Your task to perform on an android device: Search for vegetarian restaurants on Maps Image 0: 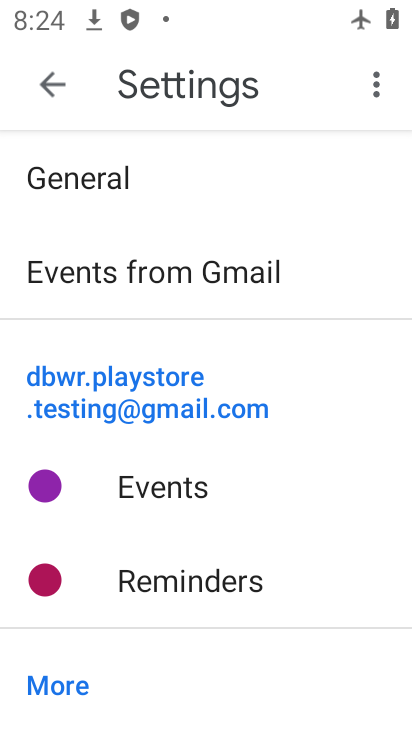
Step 0: press home button
Your task to perform on an android device: Search for vegetarian restaurants on Maps Image 1: 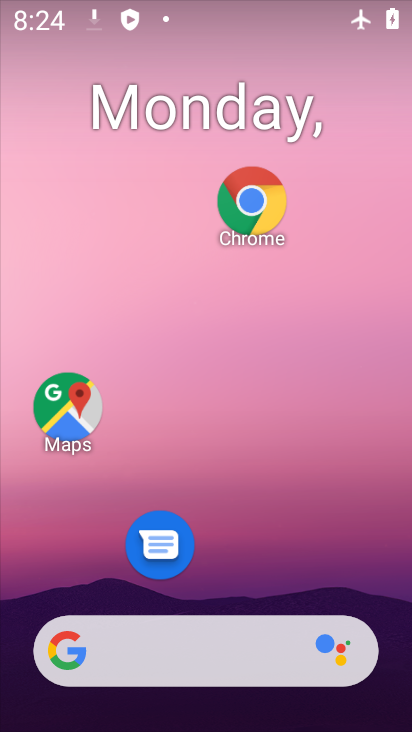
Step 1: click (74, 402)
Your task to perform on an android device: Search for vegetarian restaurants on Maps Image 2: 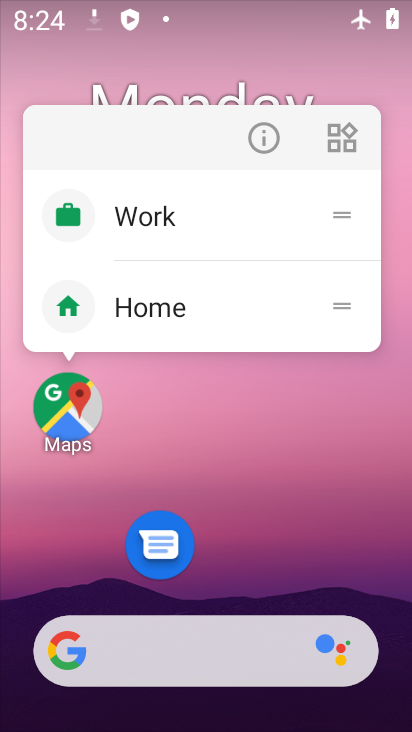
Step 2: click (71, 417)
Your task to perform on an android device: Search for vegetarian restaurants on Maps Image 3: 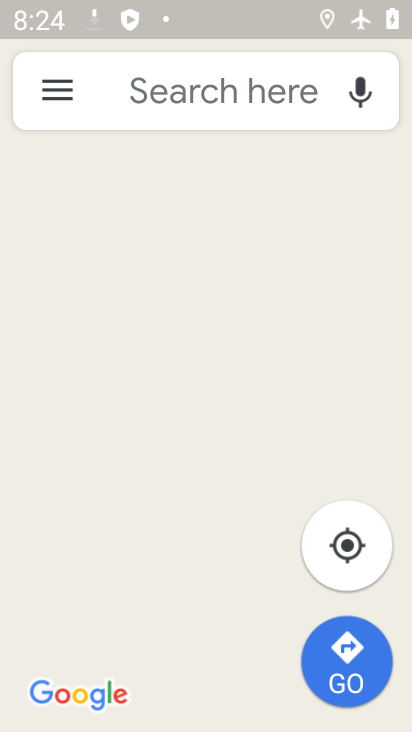
Step 3: click (185, 84)
Your task to perform on an android device: Search for vegetarian restaurants on Maps Image 4: 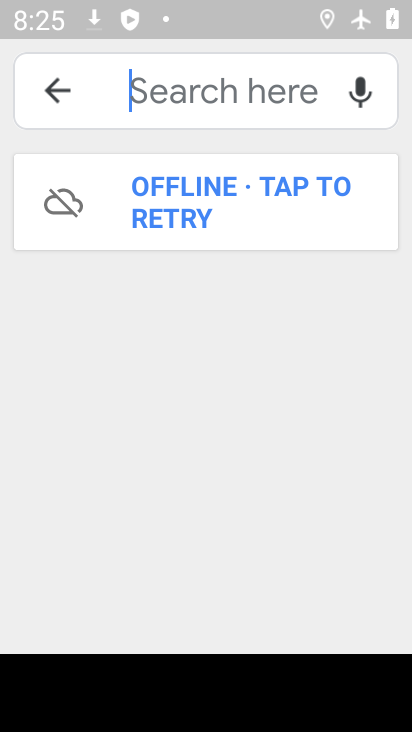
Step 4: type "vegetarian restaurants"
Your task to perform on an android device: Search for vegetarian restaurants on Maps Image 5: 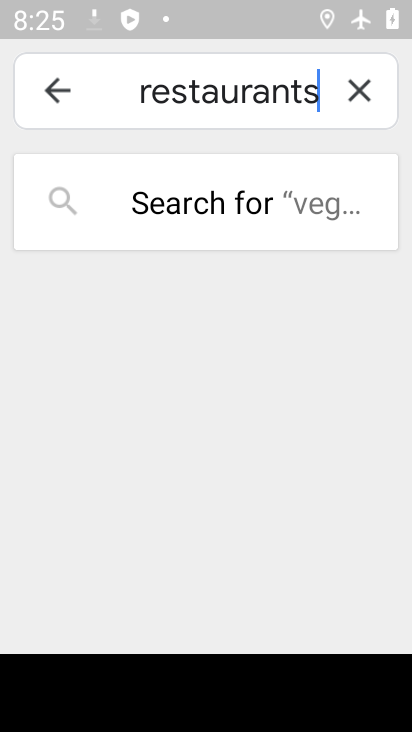
Step 5: task complete